Your task to perform on an android device: Open Google Maps Image 0: 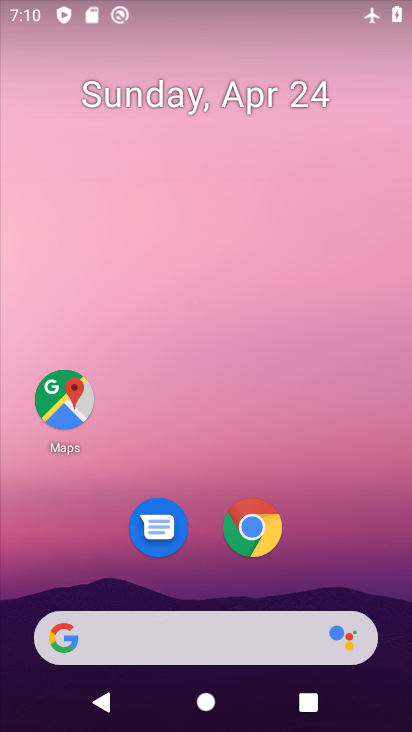
Step 0: drag from (339, 594) to (292, 78)
Your task to perform on an android device: Open Google Maps Image 1: 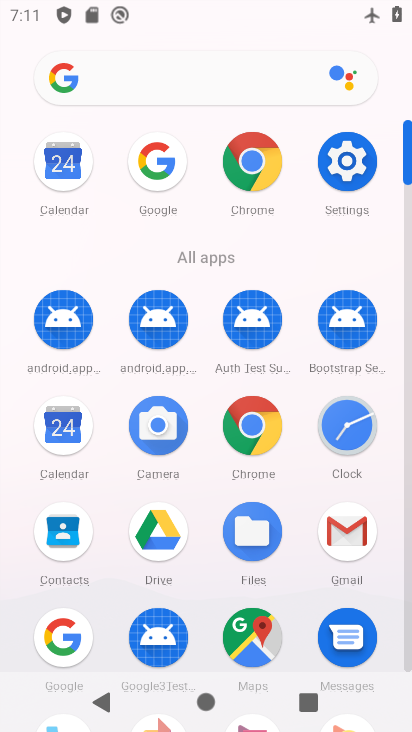
Step 1: click (271, 625)
Your task to perform on an android device: Open Google Maps Image 2: 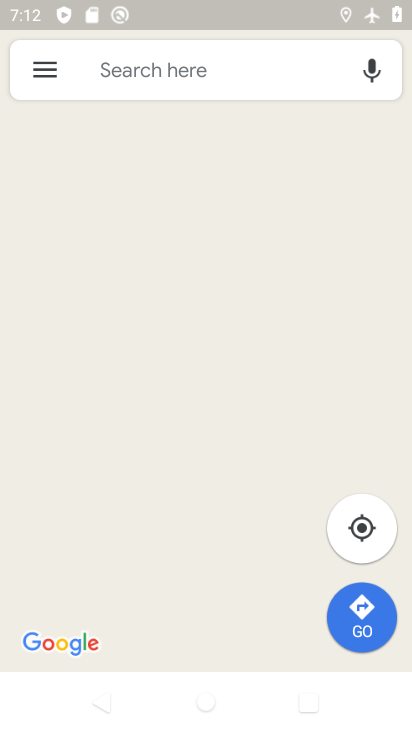
Step 2: task complete